Your task to perform on an android device: install app "Facebook" Image 0: 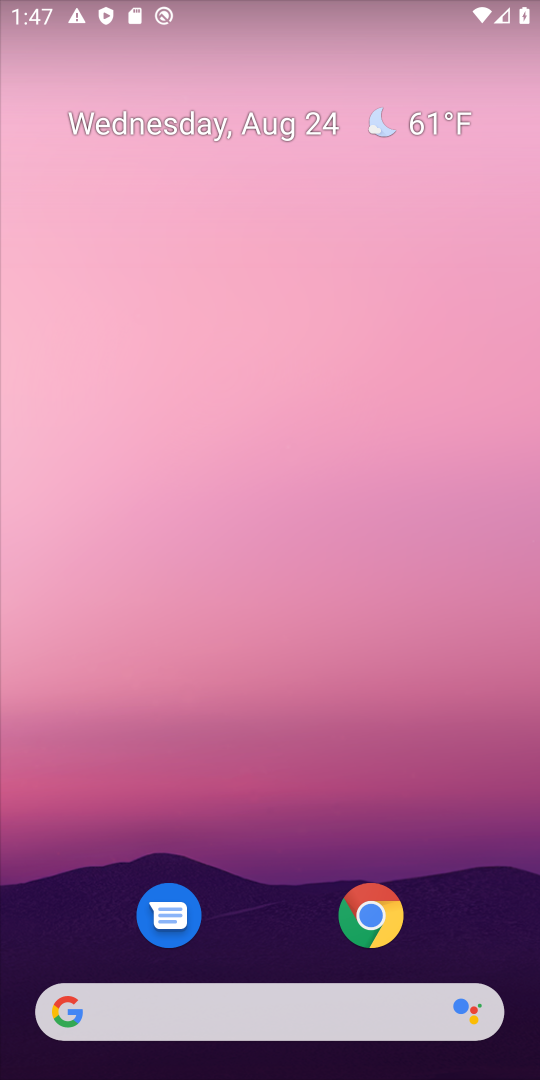
Step 0: drag from (303, 770) to (339, 169)
Your task to perform on an android device: install app "Facebook" Image 1: 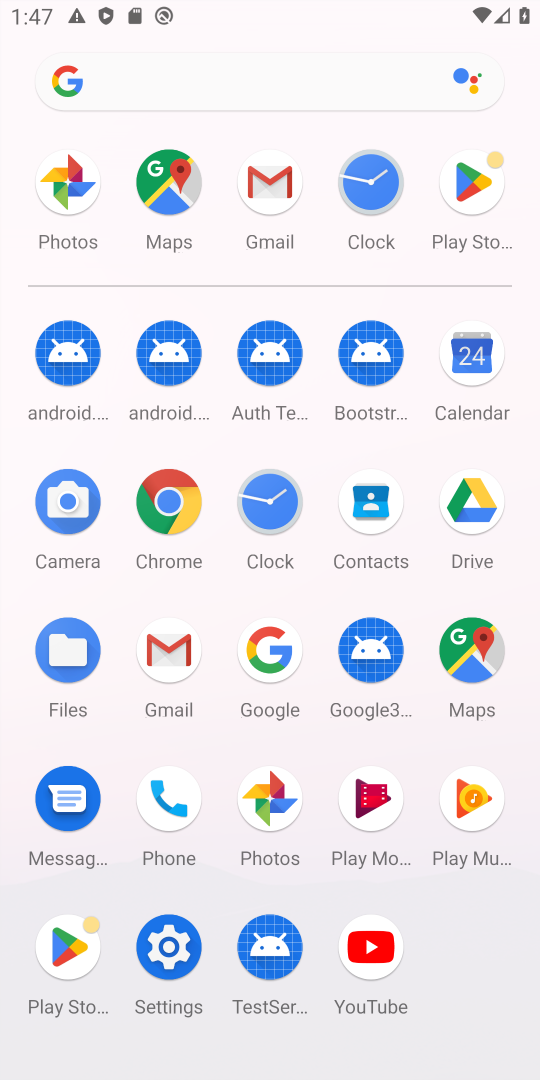
Step 1: click (490, 171)
Your task to perform on an android device: install app "Facebook" Image 2: 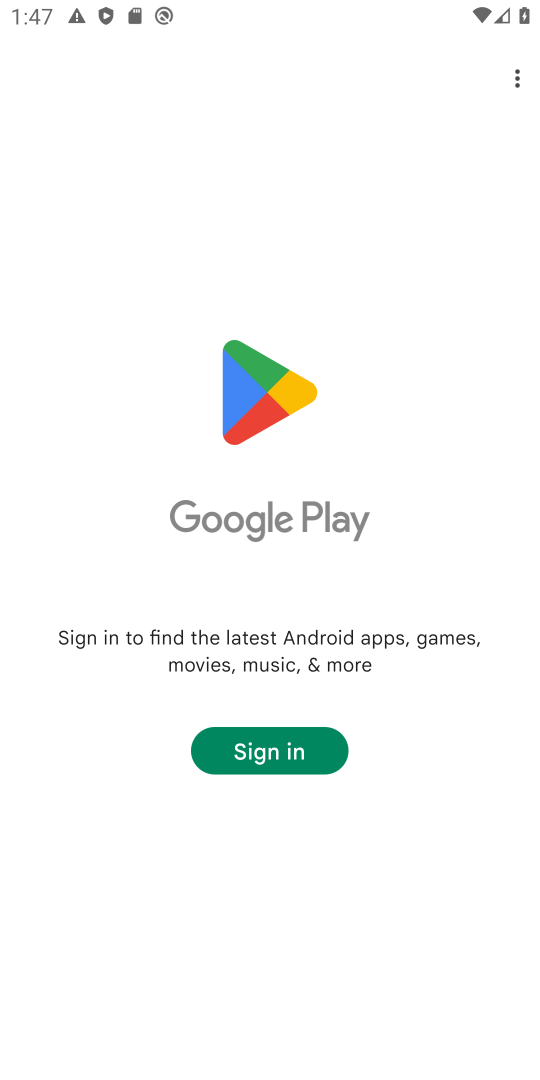
Step 2: task complete